Your task to perform on an android device: Open ESPN.com Image 0: 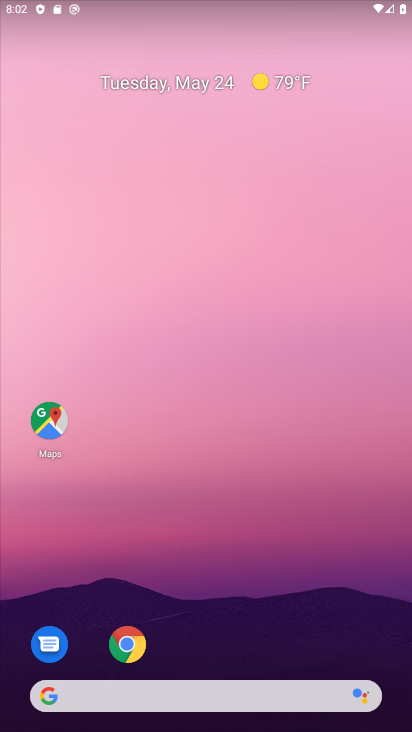
Step 0: drag from (334, 705) to (181, 2)
Your task to perform on an android device: Open ESPN.com Image 1: 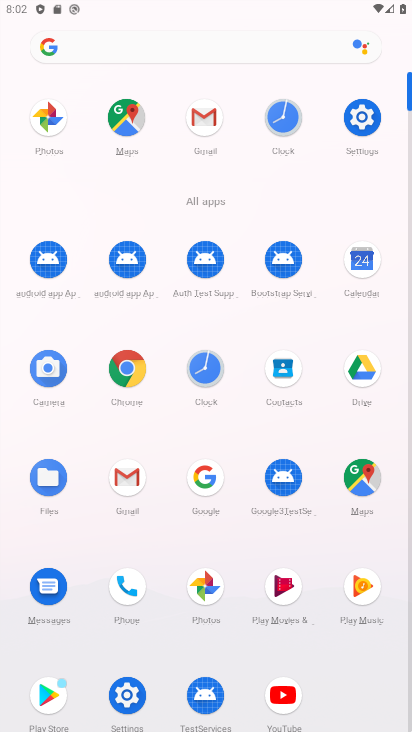
Step 1: click (127, 371)
Your task to perform on an android device: Open ESPN.com Image 2: 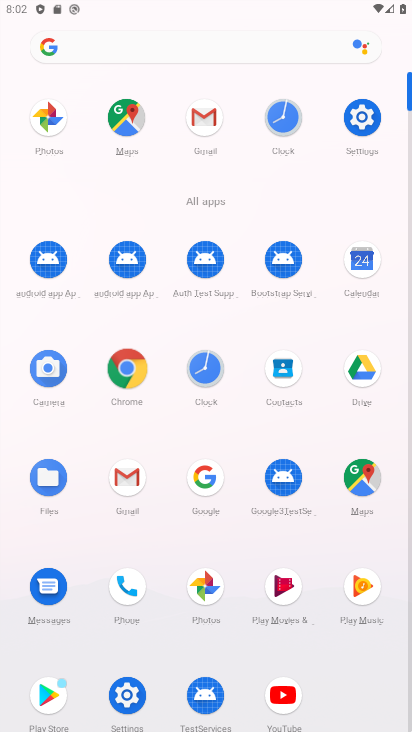
Step 2: click (129, 371)
Your task to perform on an android device: Open ESPN.com Image 3: 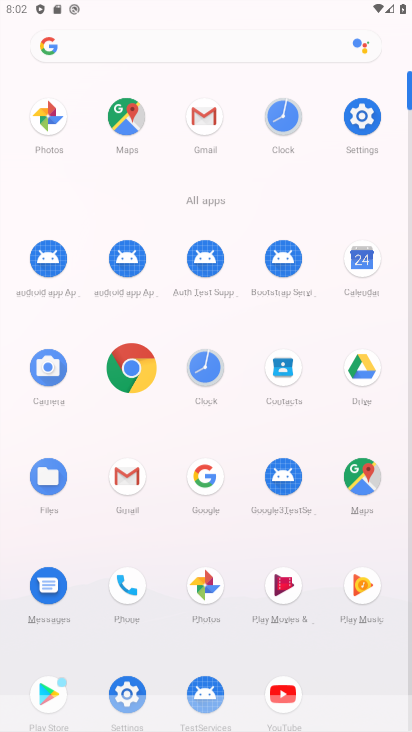
Step 3: click (130, 370)
Your task to perform on an android device: Open ESPN.com Image 4: 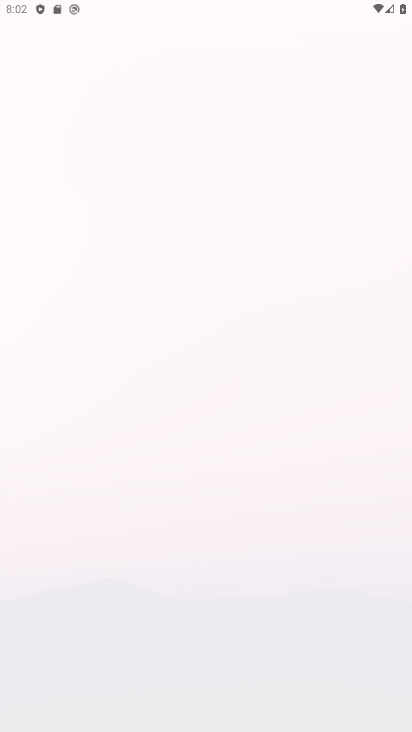
Step 4: click (131, 370)
Your task to perform on an android device: Open ESPN.com Image 5: 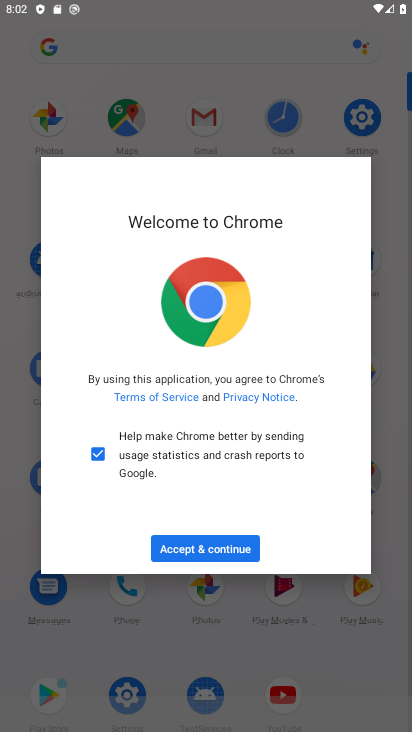
Step 5: click (212, 552)
Your task to perform on an android device: Open ESPN.com Image 6: 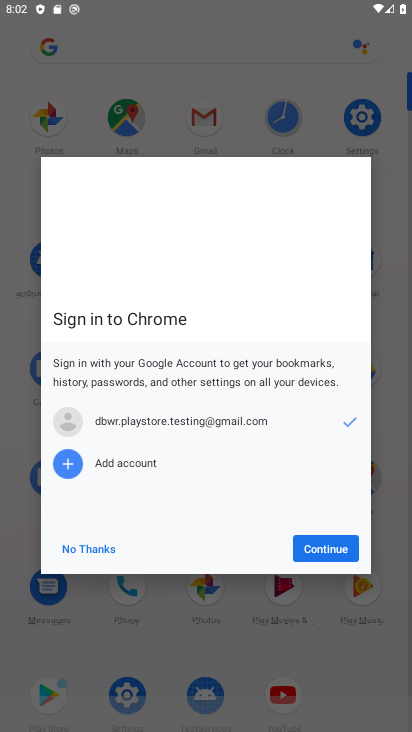
Step 6: click (247, 526)
Your task to perform on an android device: Open ESPN.com Image 7: 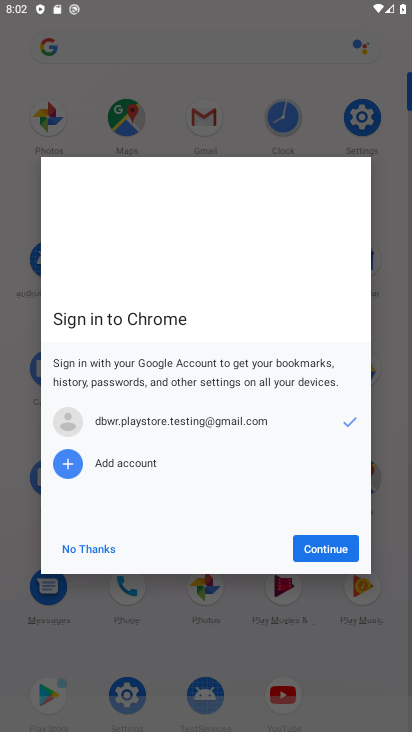
Step 7: click (336, 550)
Your task to perform on an android device: Open ESPN.com Image 8: 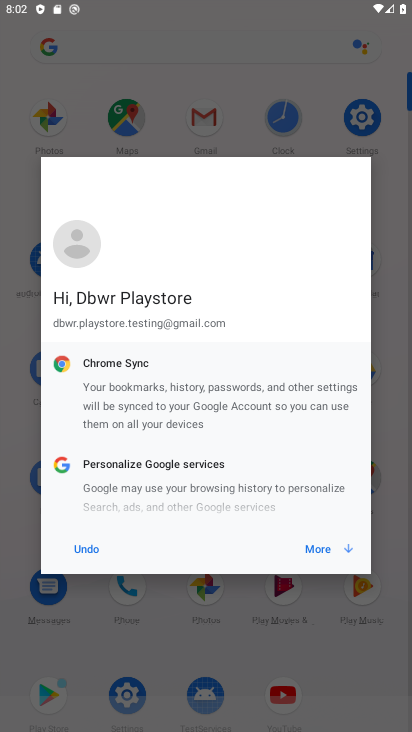
Step 8: click (343, 547)
Your task to perform on an android device: Open ESPN.com Image 9: 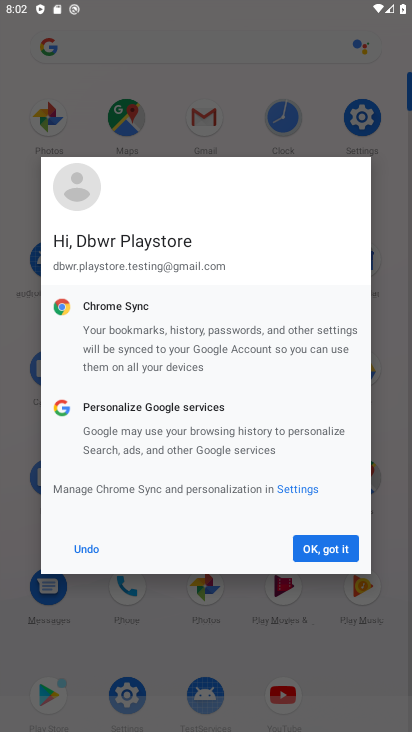
Step 9: click (313, 542)
Your task to perform on an android device: Open ESPN.com Image 10: 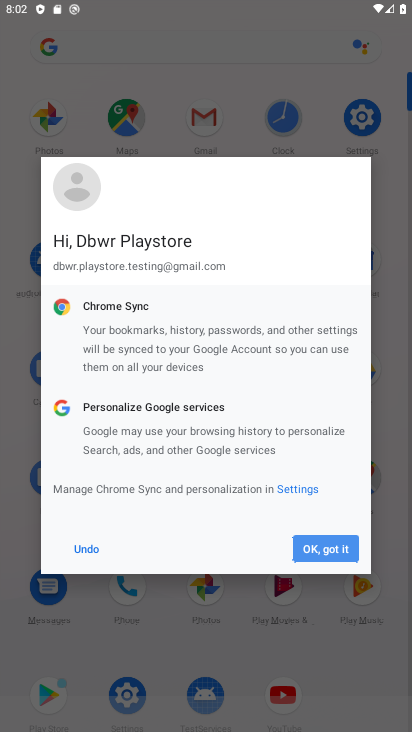
Step 10: click (333, 536)
Your task to perform on an android device: Open ESPN.com Image 11: 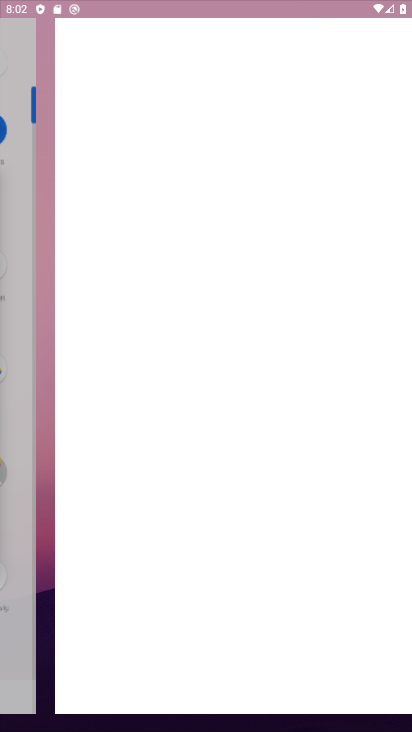
Step 11: click (335, 537)
Your task to perform on an android device: Open ESPN.com Image 12: 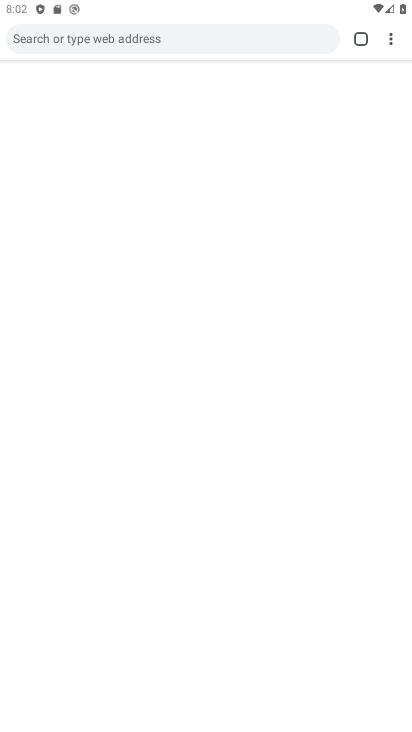
Step 12: click (335, 541)
Your task to perform on an android device: Open ESPN.com Image 13: 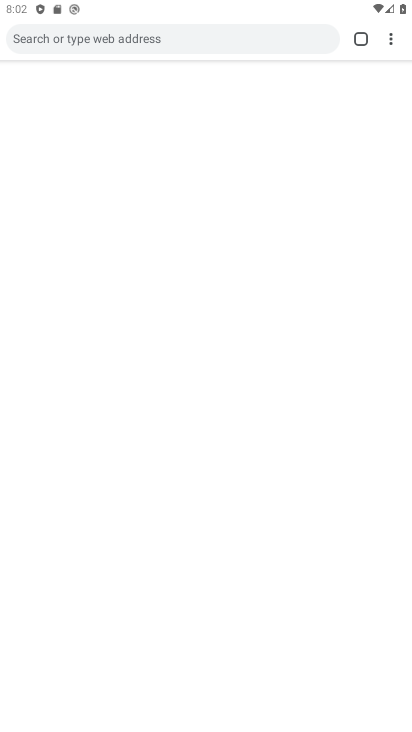
Step 13: click (335, 541)
Your task to perform on an android device: Open ESPN.com Image 14: 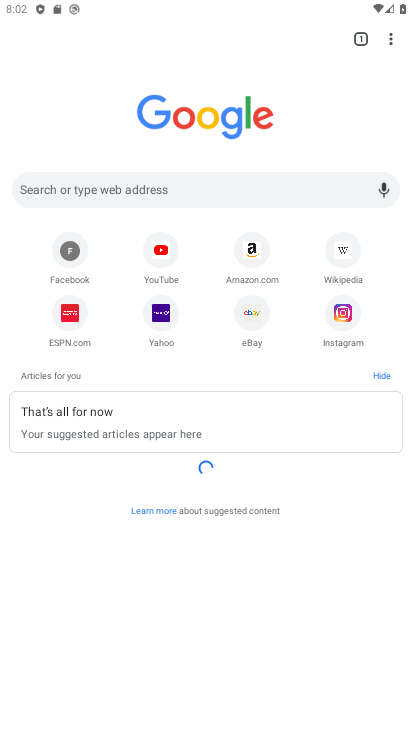
Step 14: click (225, 503)
Your task to perform on an android device: Open ESPN.com Image 15: 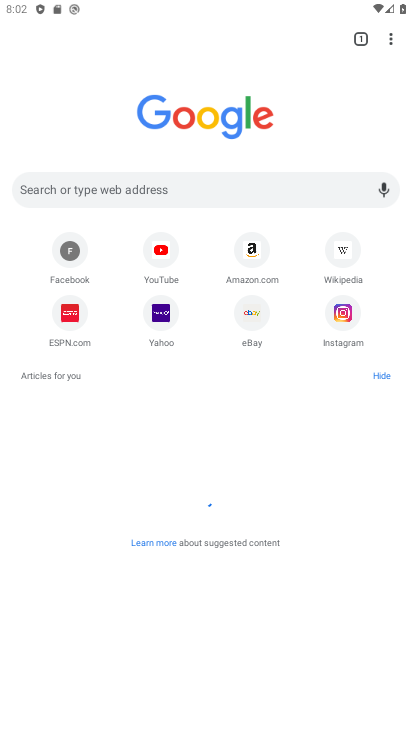
Step 15: click (225, 502)
Your task to perform on an android device: Open ESPN.com Image 16: 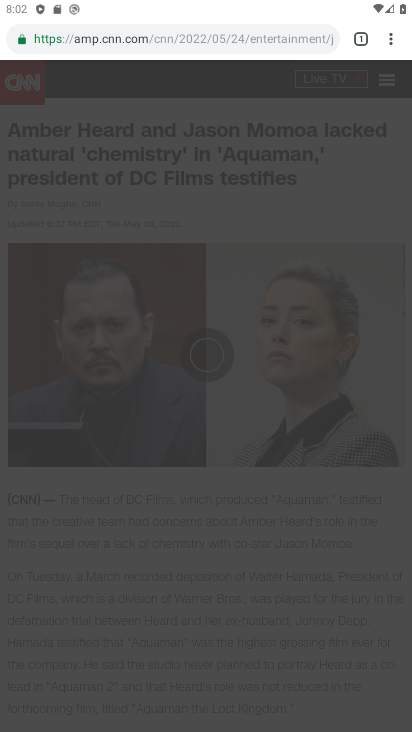
Step 16: task complete